Your task to perform on an android device: When is my next meeting? Image 0: 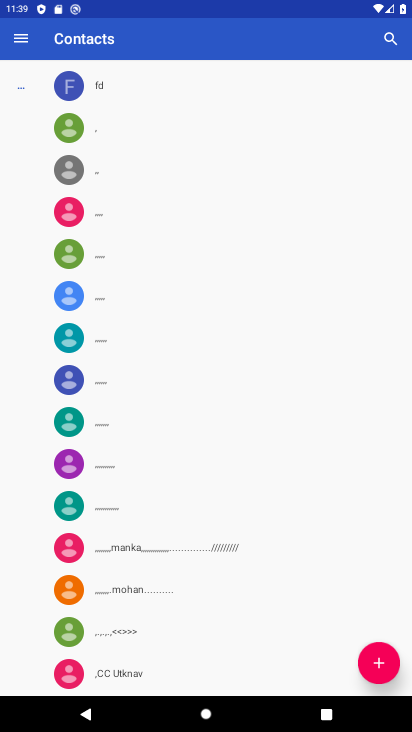
Step 0: press back button
Your task to perform on an android device: When is my next meeting? Image 1: 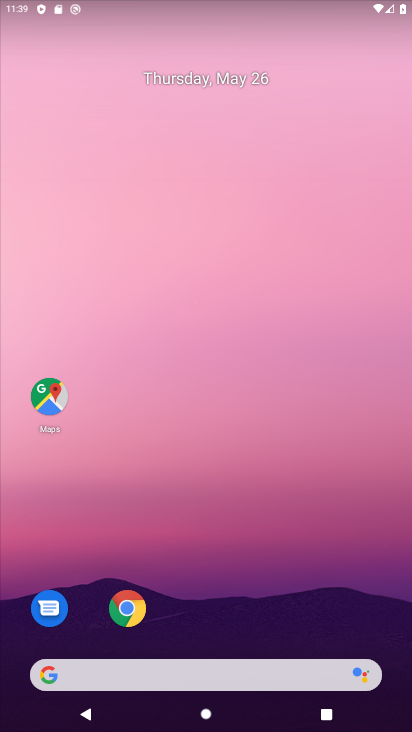
Step 1: drag from (242, 542) to (188, 0)
Your task to perform on an android device: When is my next meeting? Image 2: 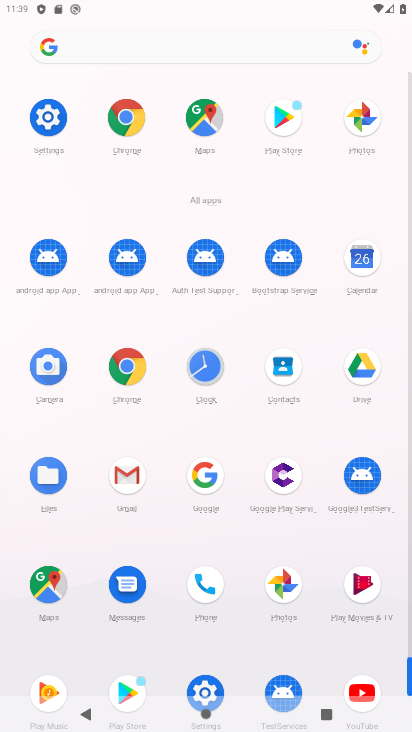
Step 2: drag from (3, 562) to (9, 245)
Your task to perform on an android device: When is my next meeting? Image 3: 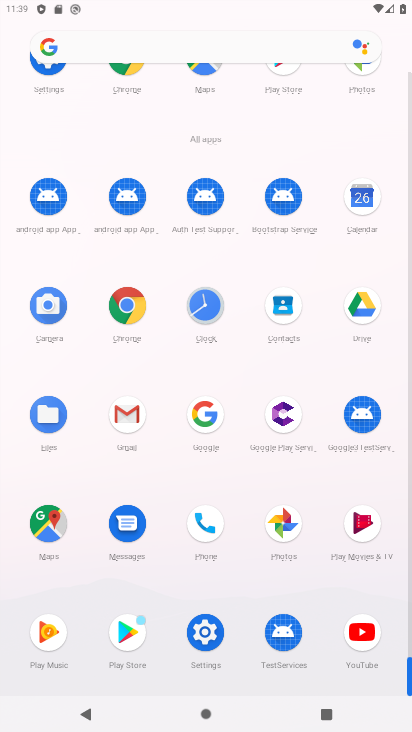
Step 3: click (366, 190)
Your task to perform on an android device: When is my next meeting? Image 4: 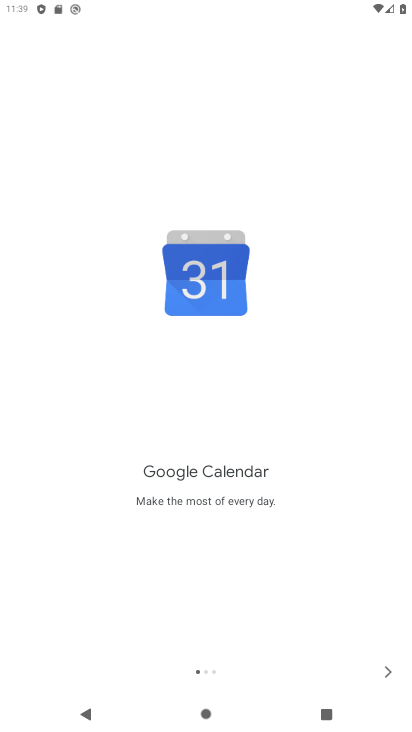
Step 4: click (380, 671)
Your task to perform on an android device: When is my next meeting? Image 5: 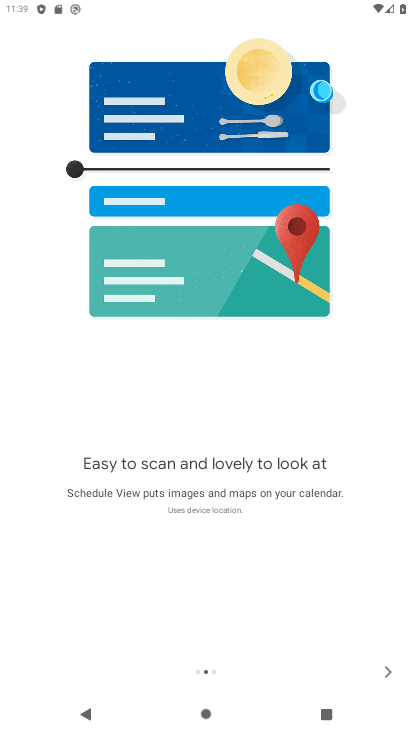
Step 5: click (380, 671)
Your task to perform on an android device: When is my next meeting? Image 6: 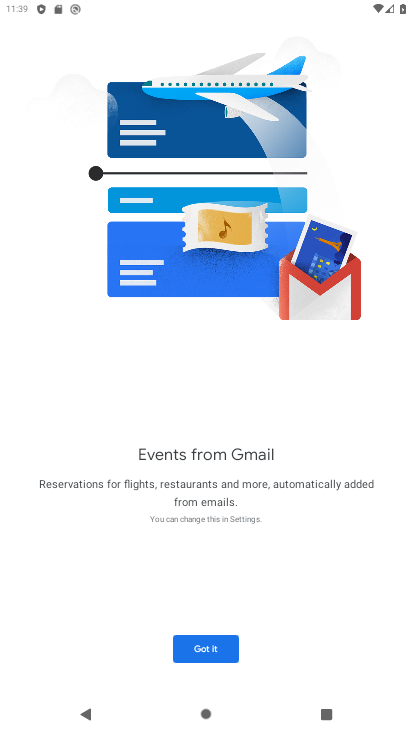
Step 6: click (220, 650)
Your task to perform on an android device: When is my next meeting? Image 7: 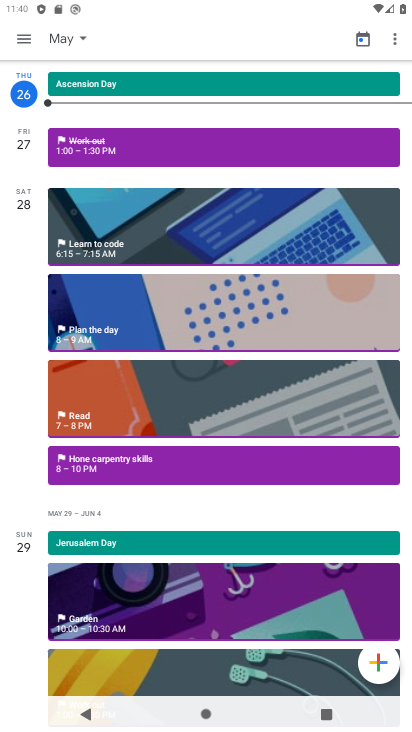
Step 7: click (63, 35)
Your task to perform on an android device: When is my next meeting? Image 8: 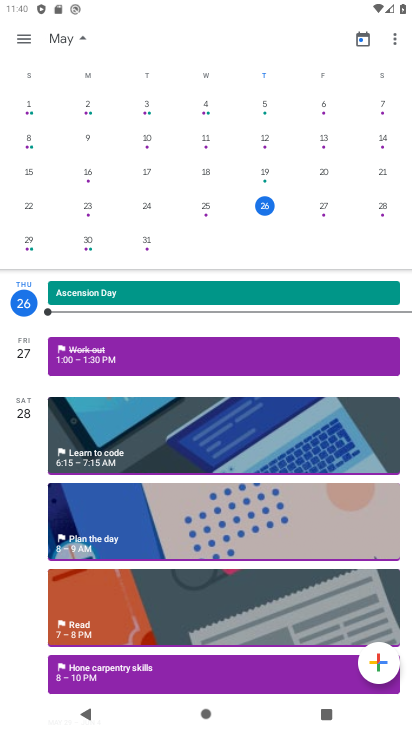
Step 8: drag from (382, 159) to (21, 140)
Your task to perform on an android device: When is my next meeting? Image 9: 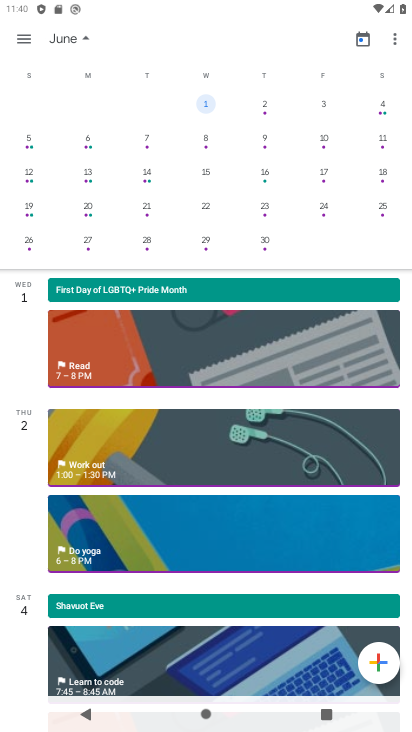
Step 9: drag from (22, 162) to (411, 155)
Your task to perform on an android device: When is my next meeting? Image 10: 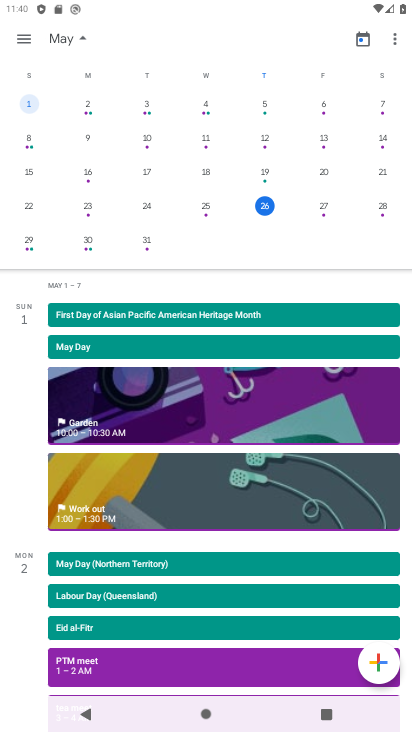
Step 10: click (25, 33)
Your task to perform on an android device: When is my next meeting? Image 11: 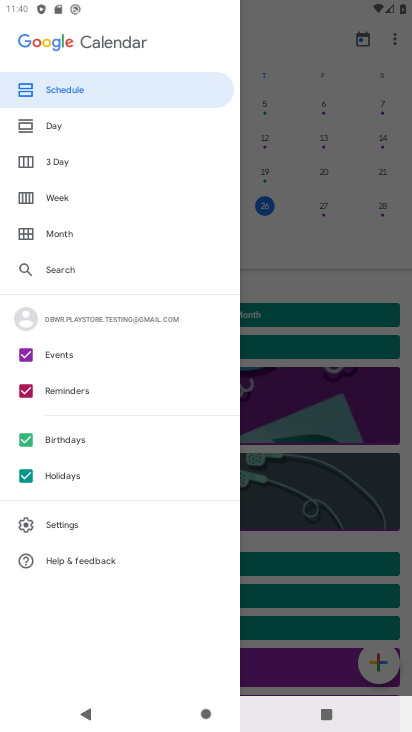
Step 11: click (77, 91)
Your task to perform on an android device: When is my next meeting? Image 12: 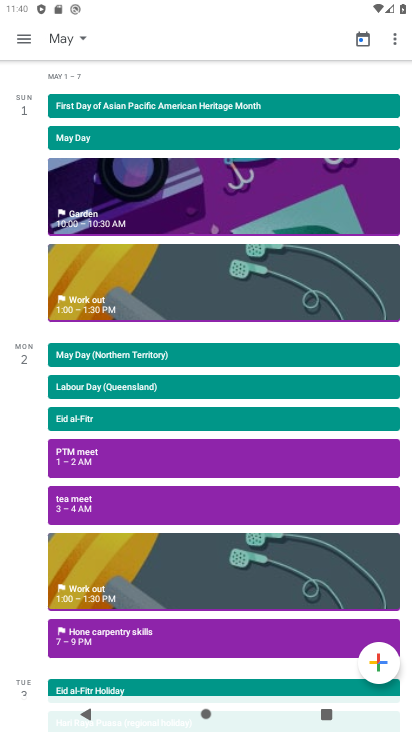
Step 12: task complete